Your task to perform on an android device: visit the assistant section in the google photos Image 0: 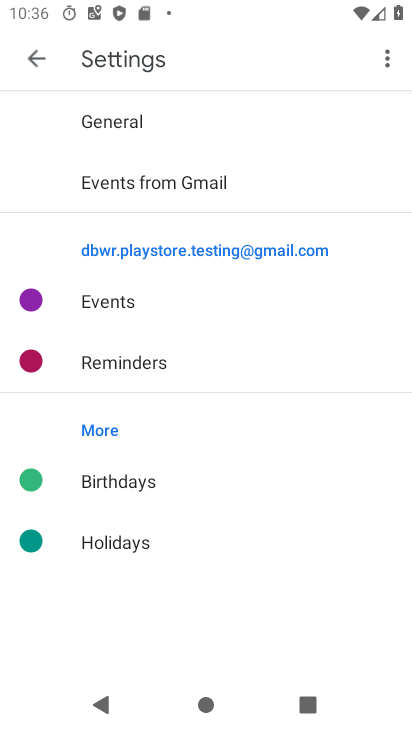
Step 0: press home button
Your task to perform on an android device: visit the assistant section in the google photos Image 1: 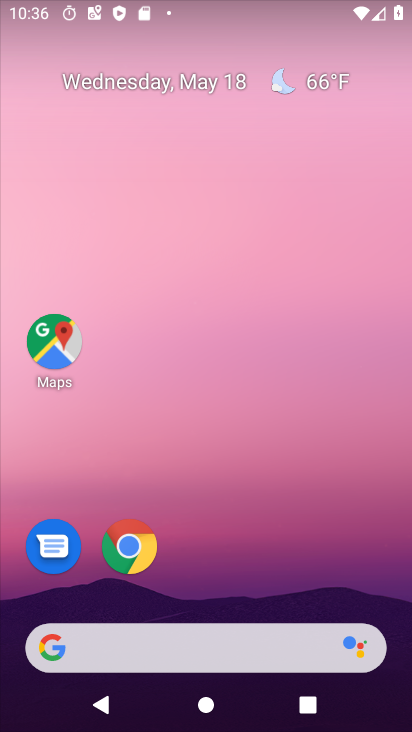
Step 1: drag from (207, 599) to (238, 163)
Your task to perform on an android device: visit the assistant section in the google photos Image 2: 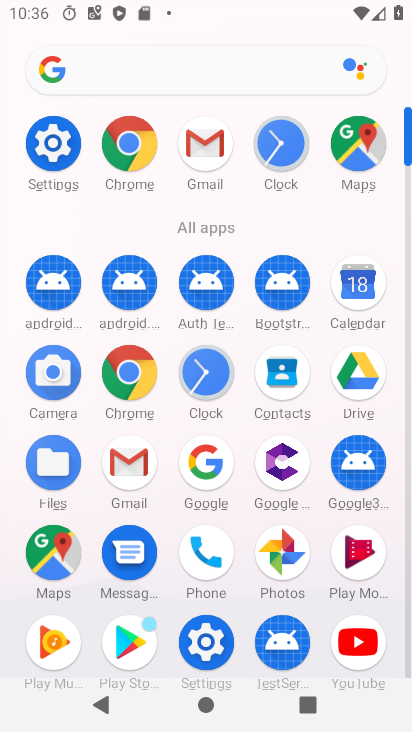
Step 2: click (279, 556)
Your task to perform on an android device: visit the assistant section in the google photos Image 3: 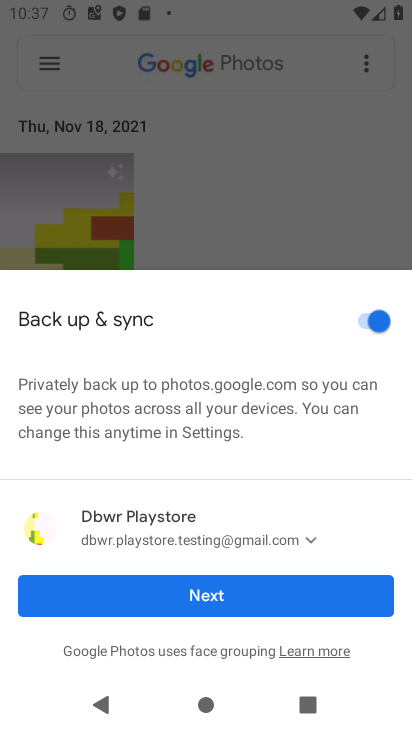
Step 3: click (219, 603)
Your task to perform on an android device: visit the assistant section in the google photos Image 4: 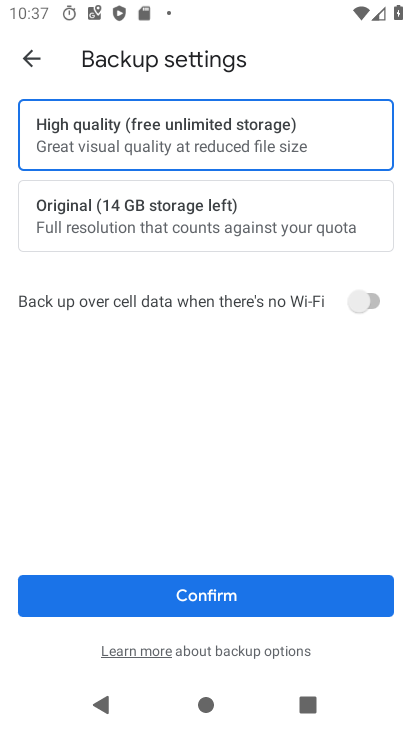
Step 4: click (206, 594)
Your task to perform on an android device: visit the assistant section in the google photos Image 5: 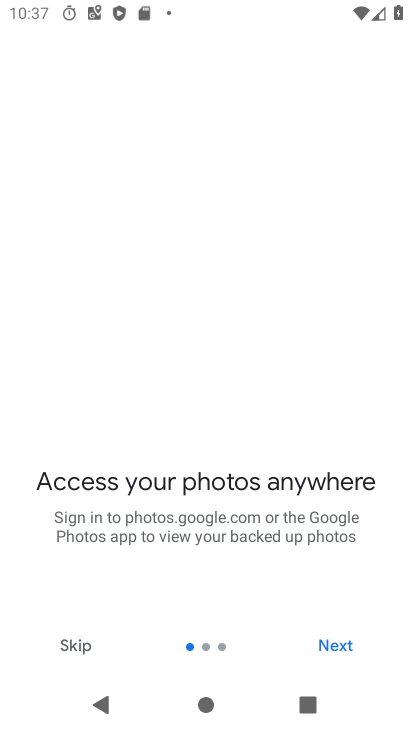
Step 5: click (327, 646)
Your task to perform on an android device: visit the assistant section in the google photos Image 6: 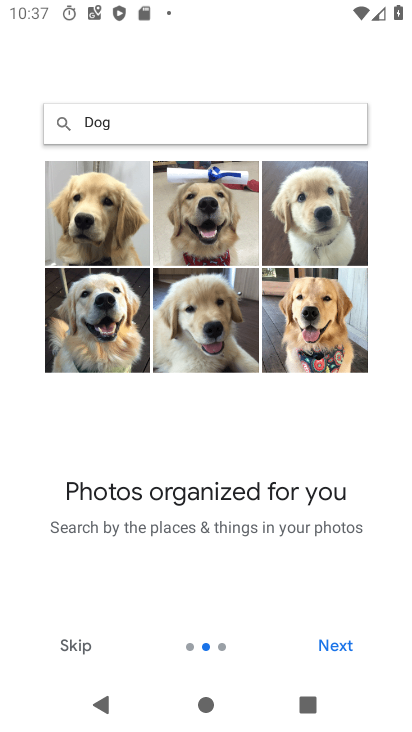
Step 6: click (327, 646)
Your task to perform on an android device: visit the assistant section in the google photos Image 7: 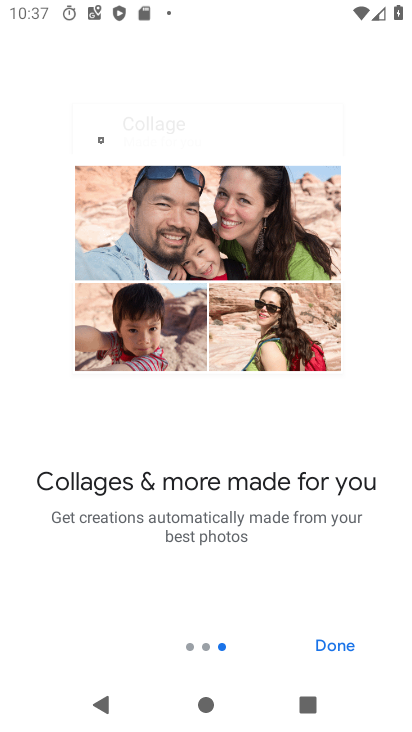
Step 7: click (327, 646)
Your task to perform on an android device: visit the assistant section in the google photos Image 8: 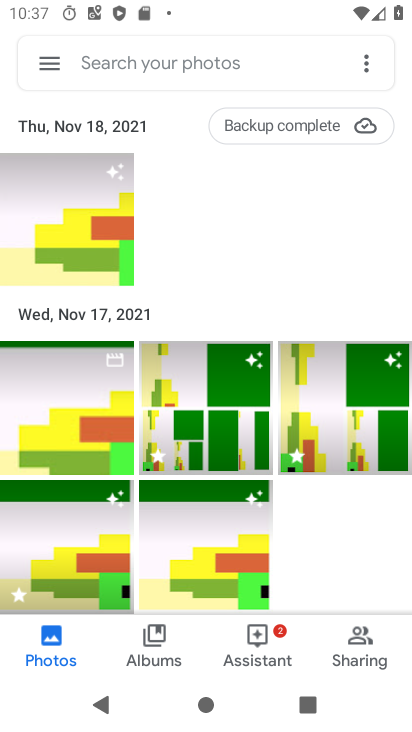
Step 8: click (252, 642)
Your task to perform on an android device: visit the assistant section in the google photos Image 9: 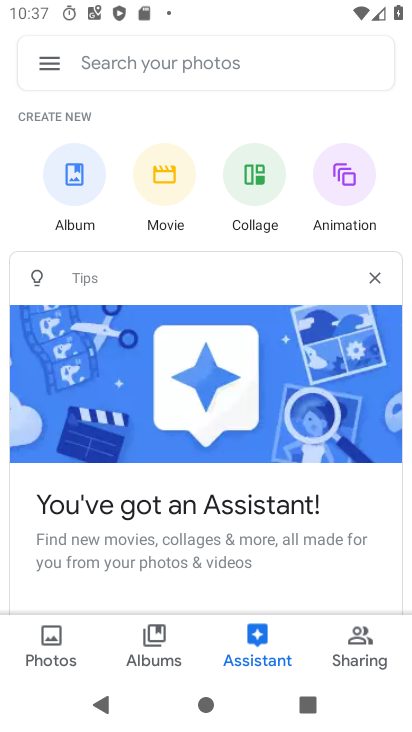
Step 9: task complete